Your task to perform on an android device: When is my next meeting? Image 0: 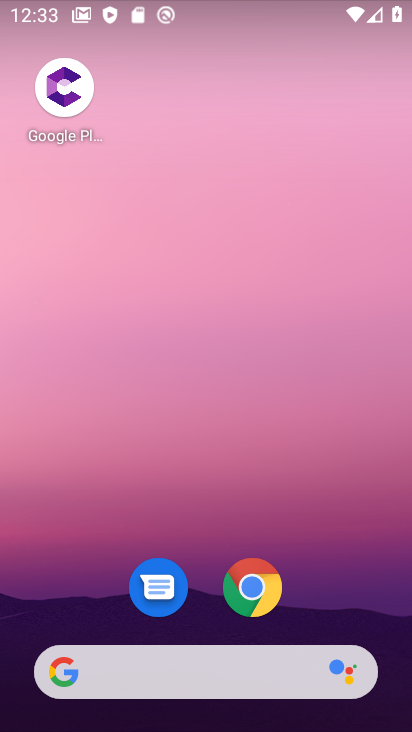
Step 0: drag from (337, 381) to (296, 80)
Your task to perform on an android device: When is my next meeting? Image 1: 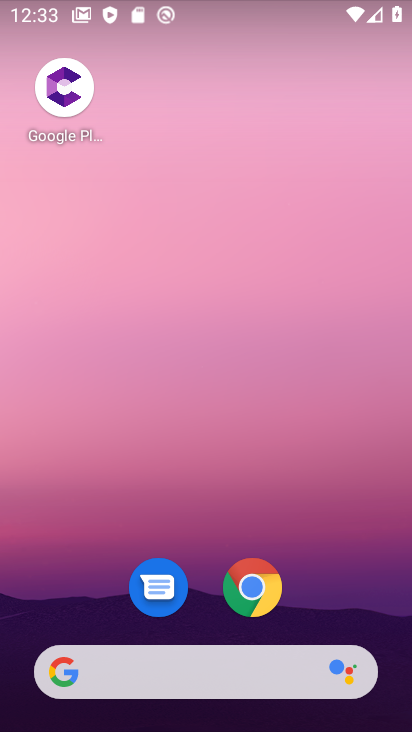
Step 1: drag from (334, 550) to (228, 33)
Your task to perform on an android device: When is my next meeting? Image 2: 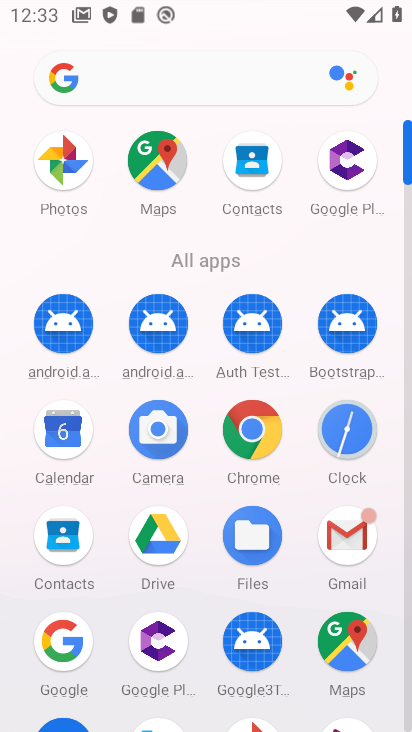
Step 2: click (65, 451)
Your task to perform on an android device: When is my next meeting? Image 3: 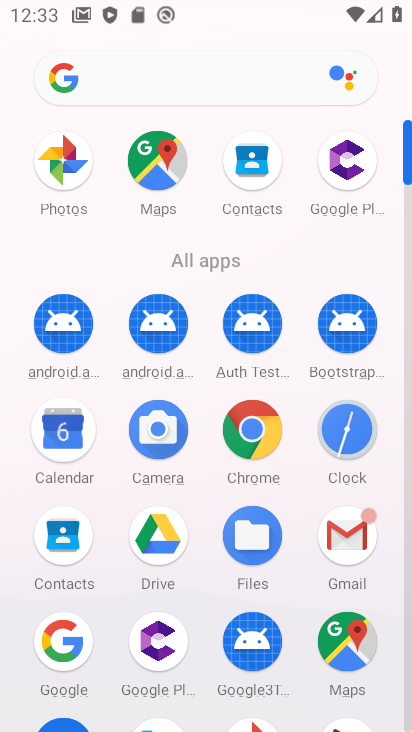
Step 3: click (62, 472)
Your task to perform on an android device: When is my next meeting? Image 4: 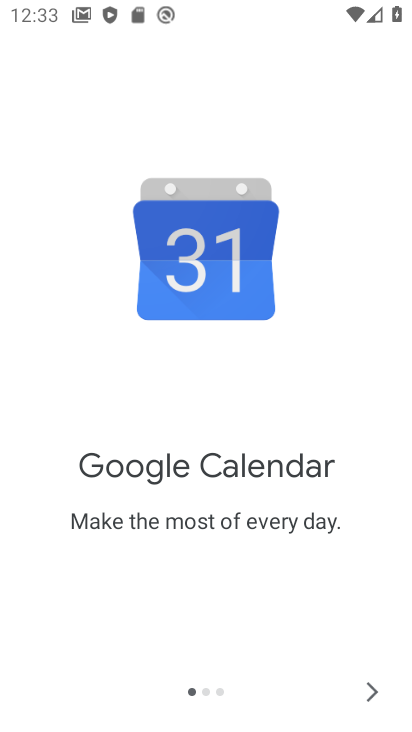
Step 4: click (363, 700)
Your task to perform on an android device: When is my next meeting? Image 5: 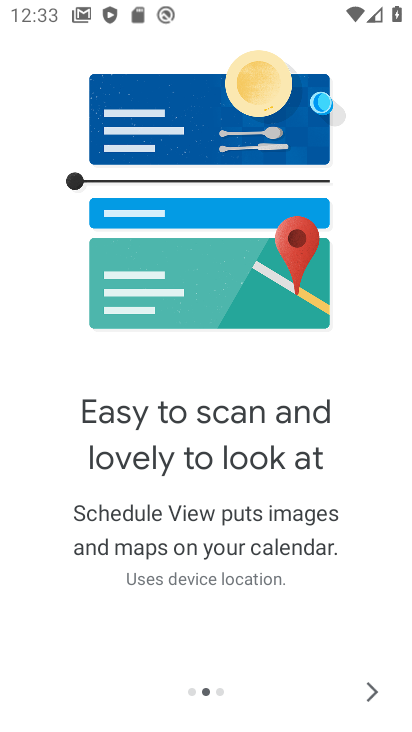
Step 5: click (369, 694)
Your task to perform on an android device: When is my next meeting? Image 6: 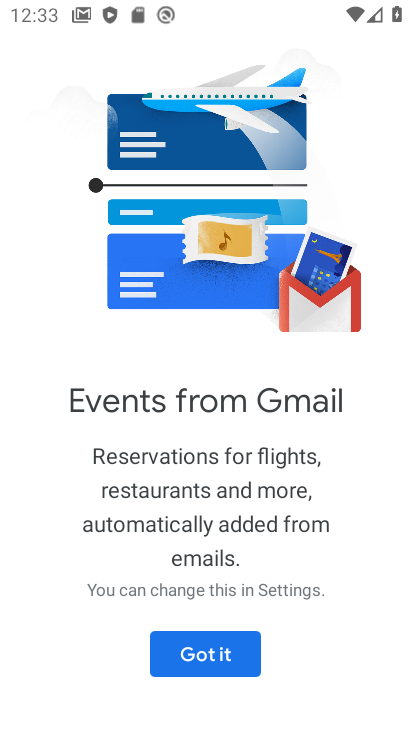
Step 6: click (178, 647)
Your task to perform on an android device: When is my next meeting? Image 7: 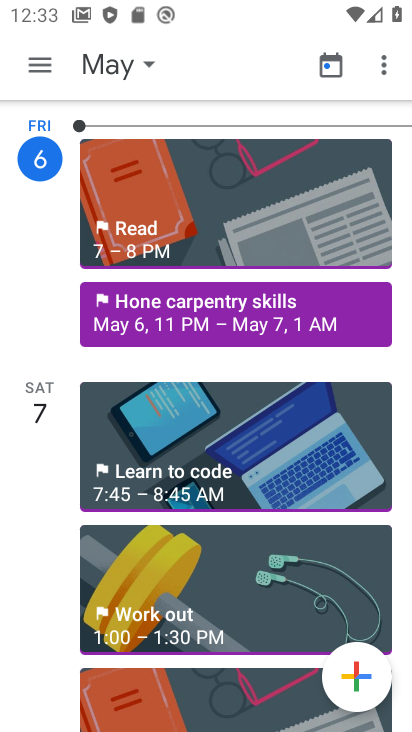
Step 7: task complete